Your task to perform on an android device: Go to Wikipedia Image 0: 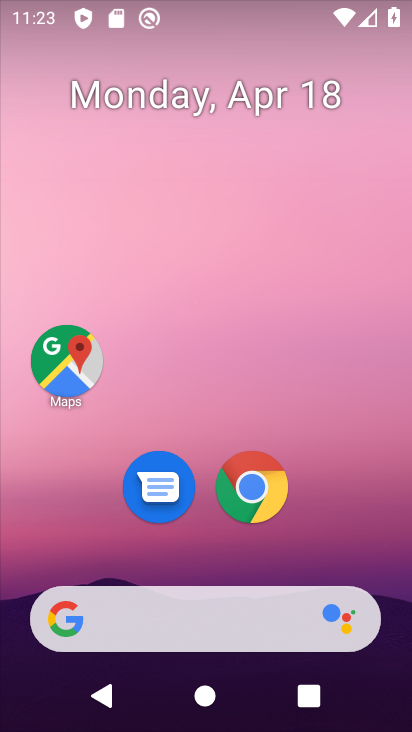
Step 0: click (248, 495)
Your task to perform on an android device: Go to Wikipedia Image 1: 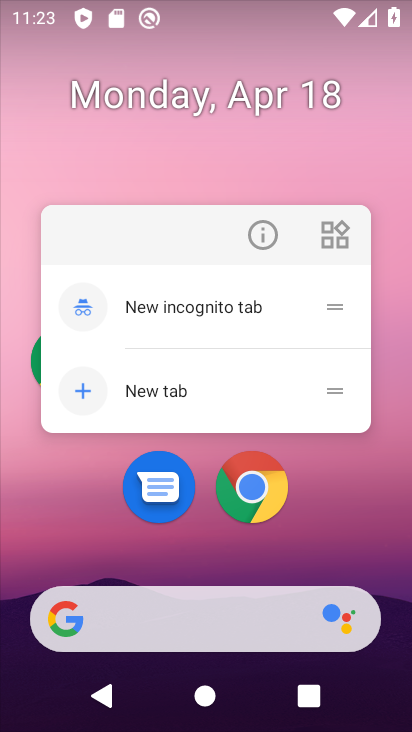
Step 1: click (252, 487)
Your task to perform on an android device: Go to Wikipedia Image 2: 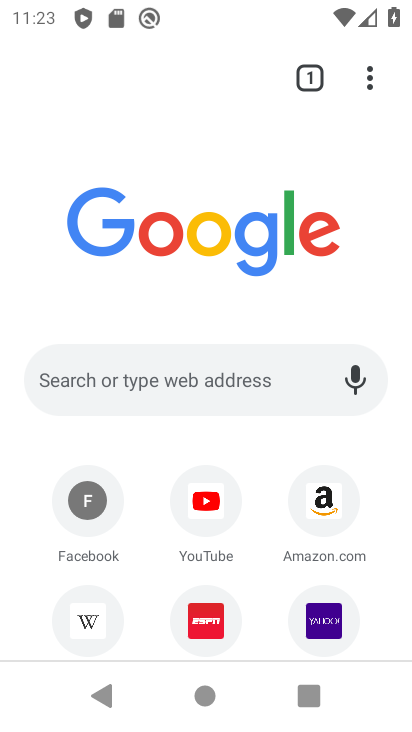
Step 2: click (89, 627)
Your task to perform on an android device: Go to Wikipedia Image 3: 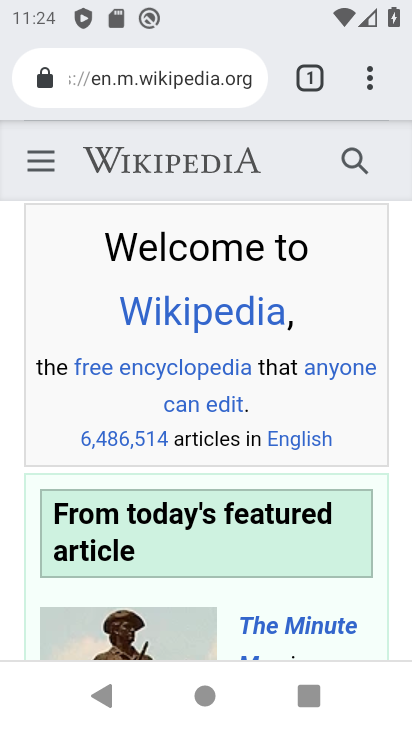
Step 3: task complete